Your task to perform on an android device: toggle javascript in the chrome app Image 0: 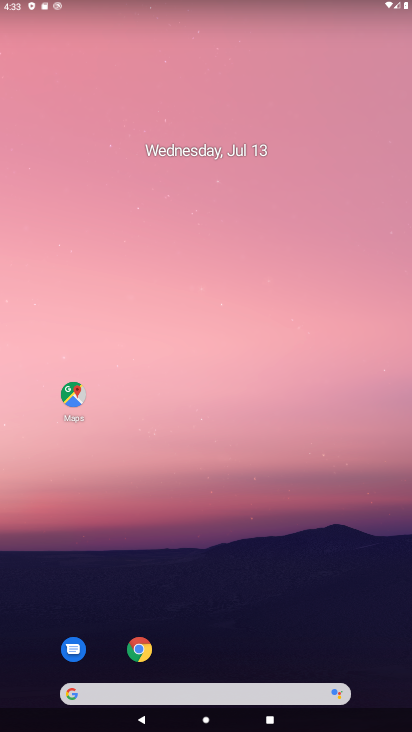
Step 0: drag from (334, 609) to (303, 21)
Your task to perform on an android device: toggle javascript in the chrome app Image 1: 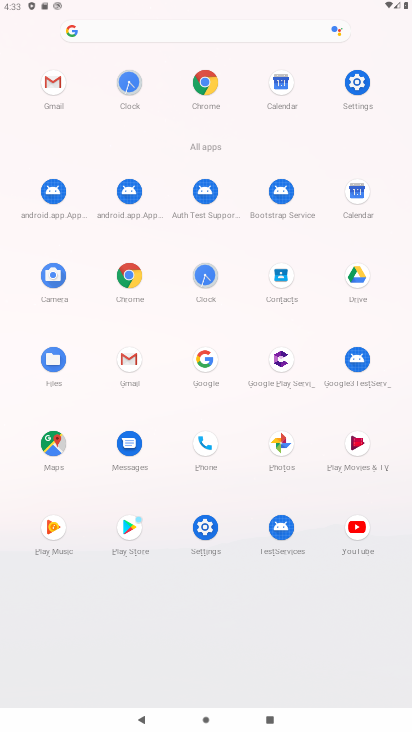
Step 1: click (192, 76)
Your task to perform on an android device: toggle javascript in the chrome app Image 2: 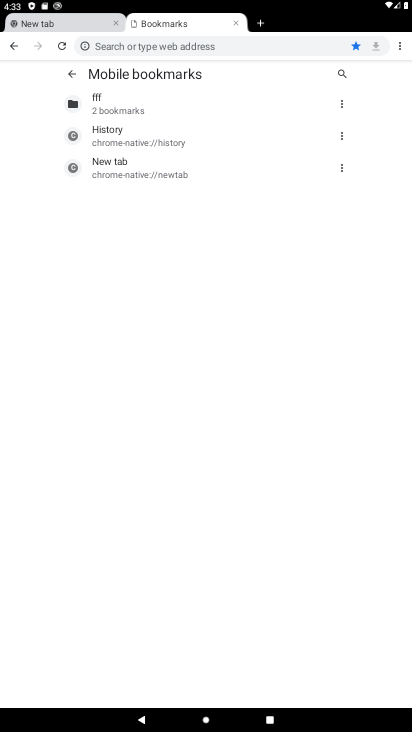
Step 2: drag from (401, 50) to (310, 218)
Your task to perform on an android device: toggle javascript in the chrome app Image 3: 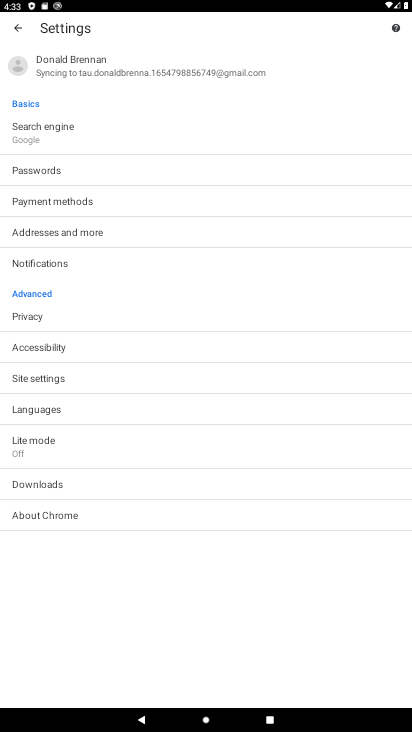
Step 3: click (44, 381)
Your task to perform on an android device: toggle javascript in the chrome app Image 4: 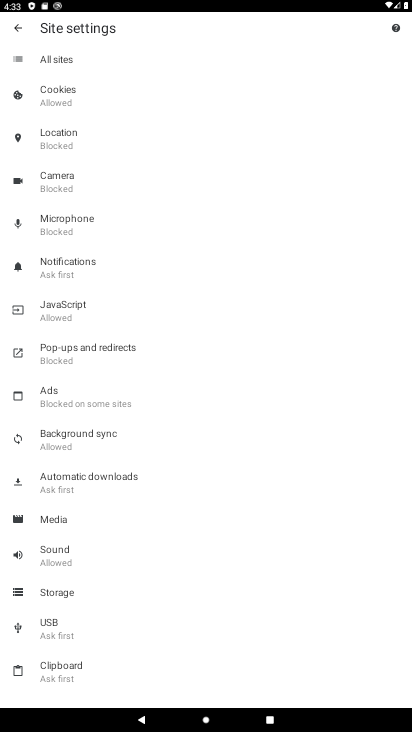
Step 4: click (24, 296)
Your task to perform on an android device: toggle javascript in the chrome app Image 5: 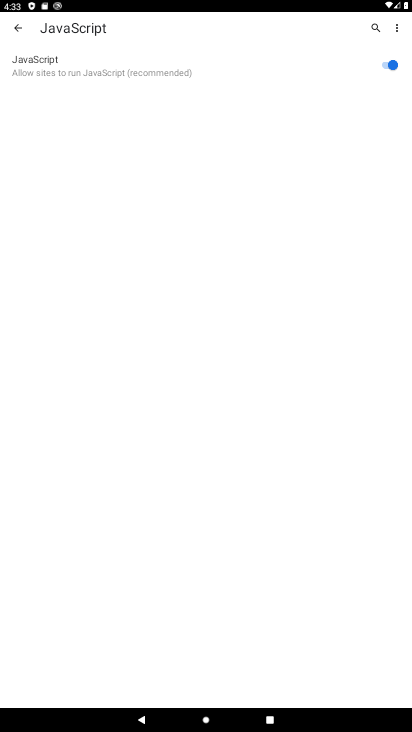
Step 5: click (381, 72)
Your task to perform on an android device: toggle javascript in the chrome app Image 6: 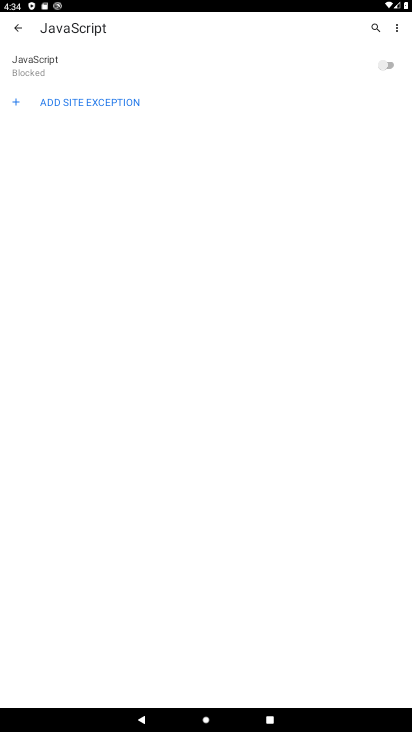
Step 6: task complete